Your task to perform on an android device: Go to ESPN.com Image 0: 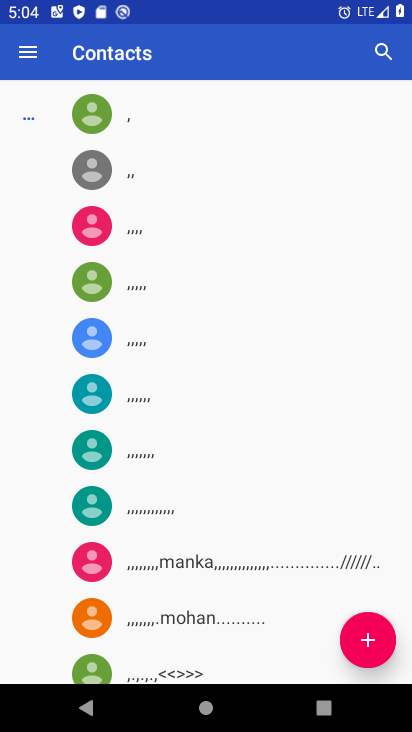
Step 0: press home button
Your task to perform on an android device: Go to ESPN.com Image 1: 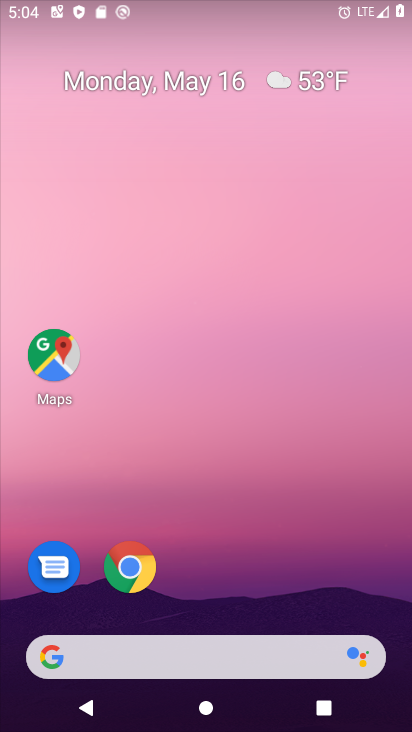
Step 1: drag from (308, 675) to (337, 1)
Your task to perform on an android device: Go to ESPN.com Image 2: 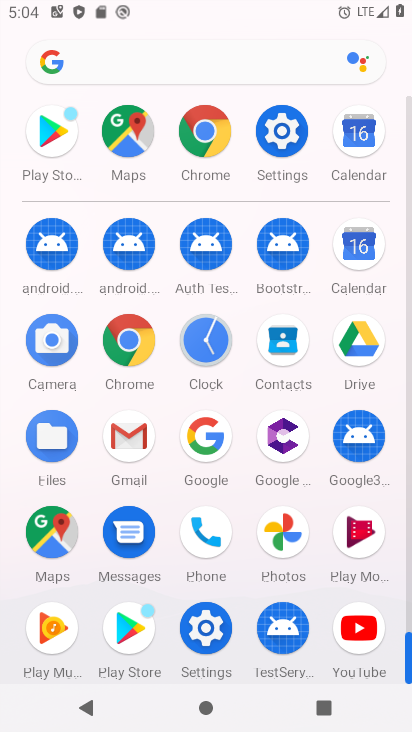
Step 2: click (129, 336)
Your task to perform on an android device: Go to ESPN.com Image 3: 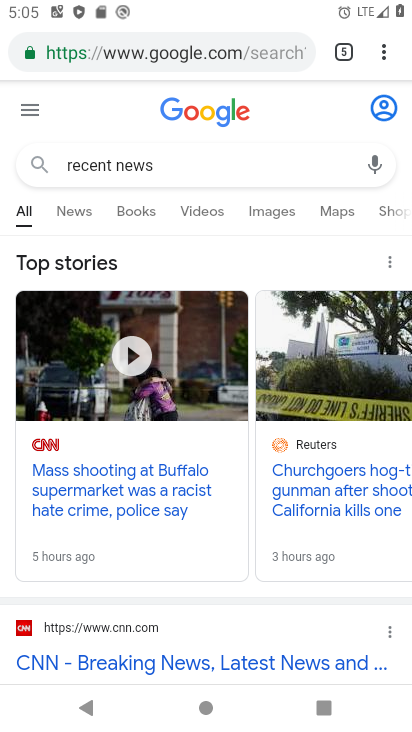
Step 3: click (375, 48)
Your task to perform on an android device: Go to ESPN.com Image 4: 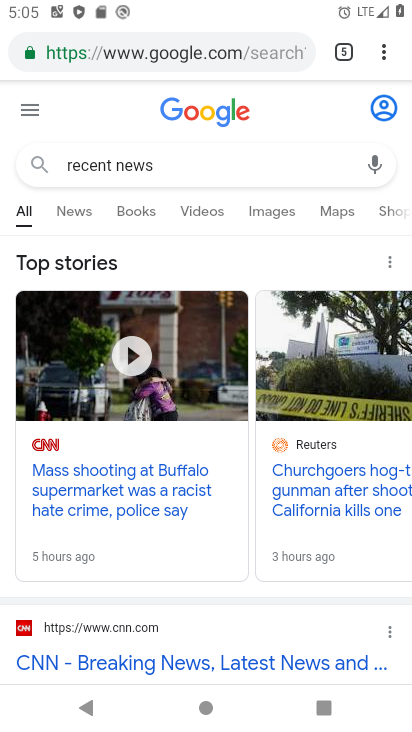
Step 4: click (275, 50)
Your task to perform on an android device: Go to ESPN.com Image 5: 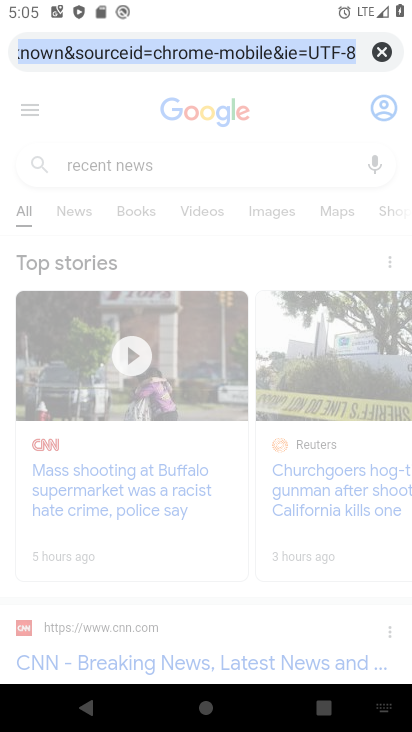
Step 5: click (376, 48)
Your task to perform on an android device: Go to ESPN.com Image 6: 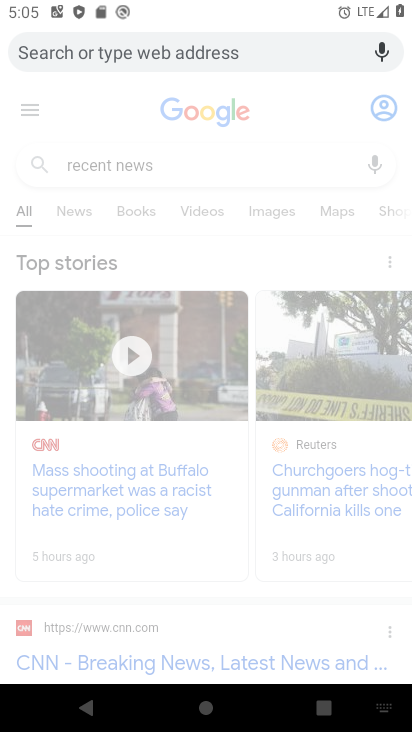
Step 6: type "espn.com"
Your task to perform on an android device: Go to ESPN.com Image 7: 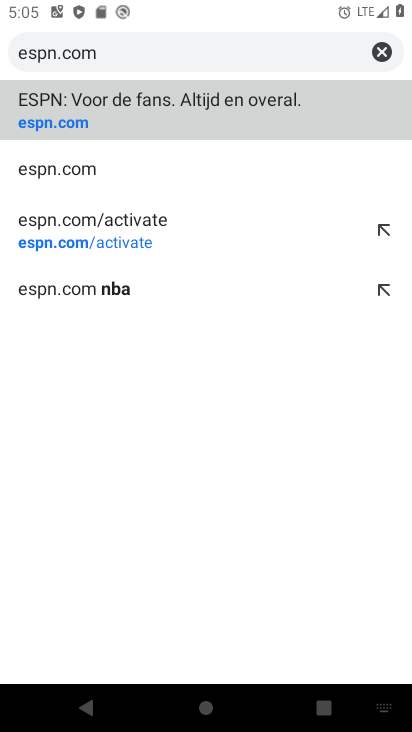
Step 7: click (85, 133)
Your task to perform on an android device: Go to ESPN.com Image 8: 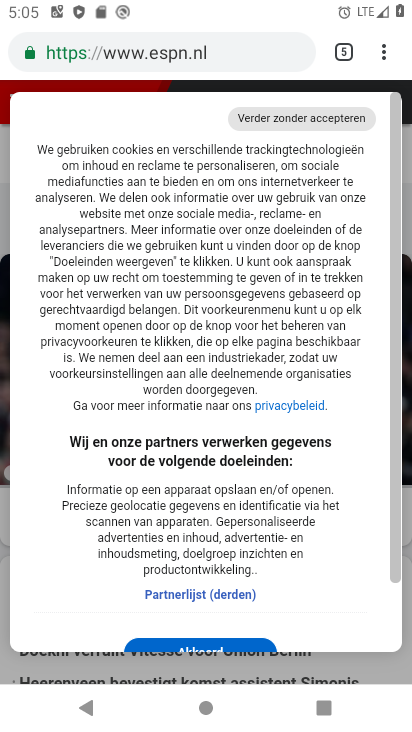
Step 8: task complete